Your task to perform on an android device: See recent photos Image 0: 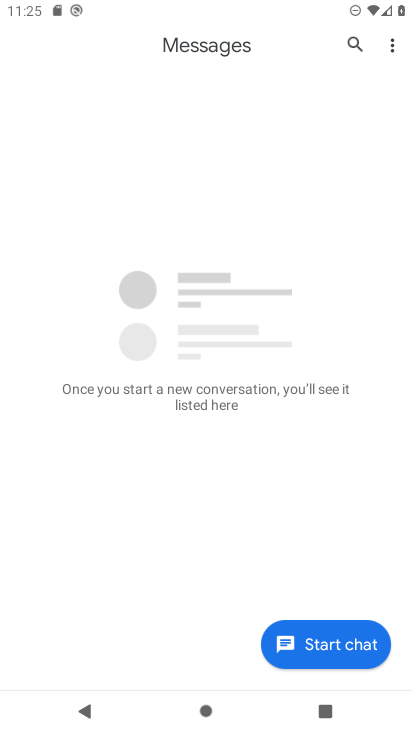
Step 0: press home button
Your task to perform on an android device: See recent photos Image 1: 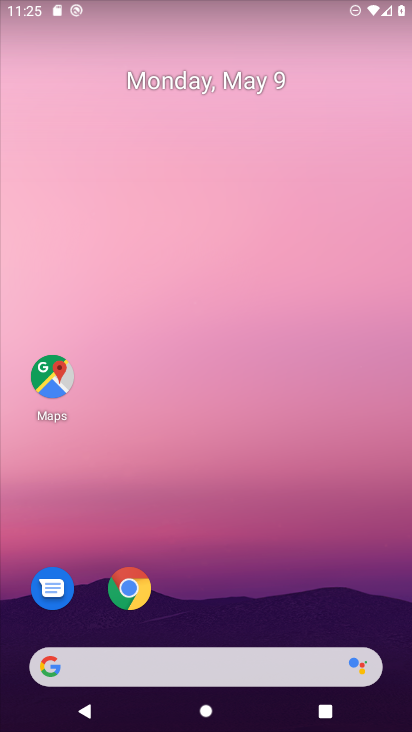
Step 1: drag from (260, 611) to (163, 11)
Your task to perform on an android device: See recent photos Image 2: 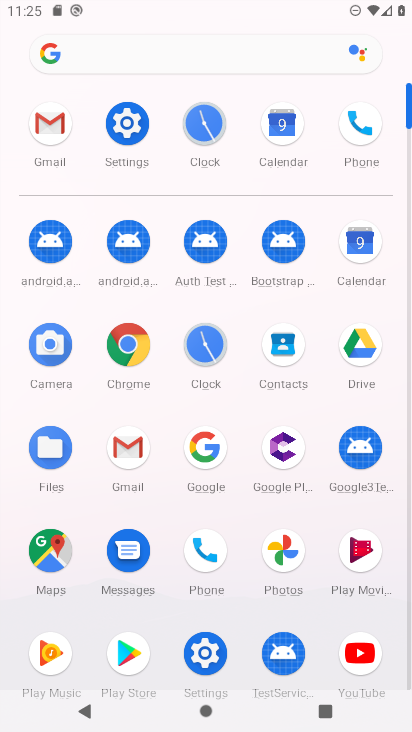
Step 2: click (127, 104)
Your task to perform on an android device: See recent photos Image 3: 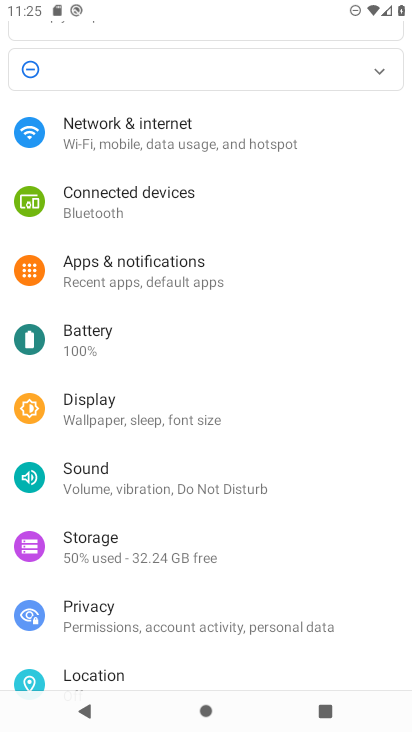
Step 3: press home button
Your task to perform on an android device: See recent photos Image 4: 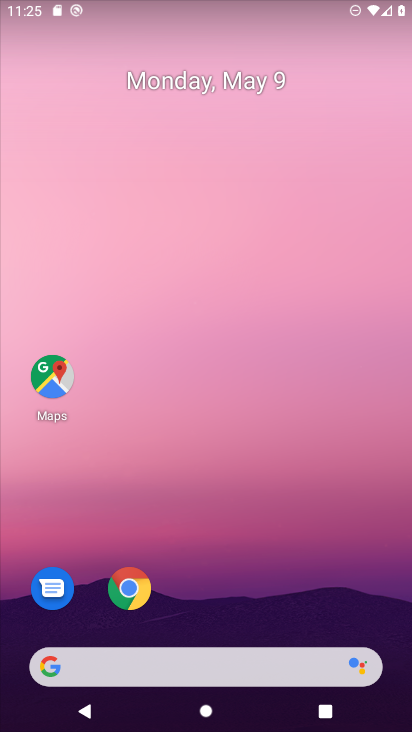
Step 4: drag from (323, 564) to (322, 70)
Your task to perform on an android device: See recent photos Image 5: 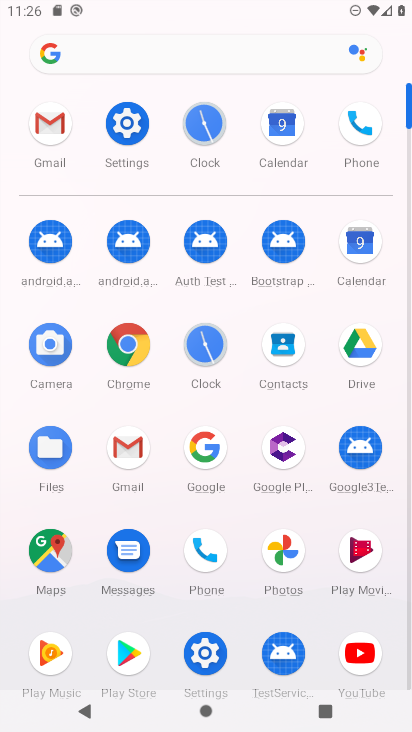
Step 5: click (288, 563)
Your task to perform on an android device: See recent photos Image 6: 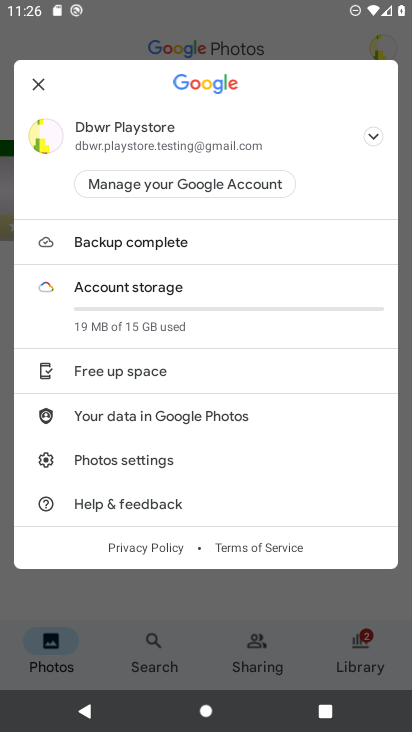
Step 6: click (283, 618)
Your task to perform on an android device: See recent photos Image 7: 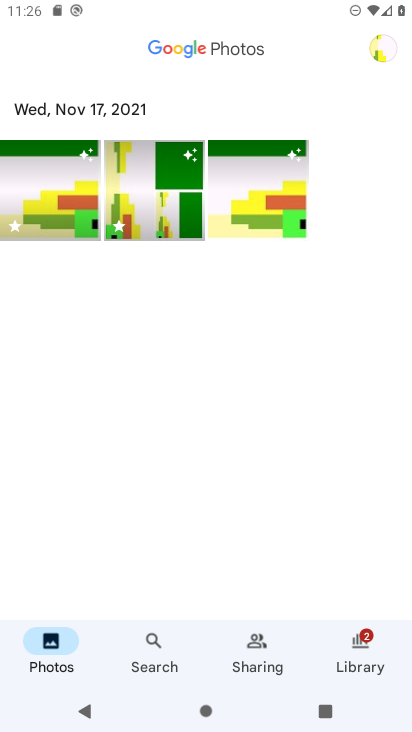
Step 7: task complete